Your task to perform on an android device: Open accessibility settings Image 0: 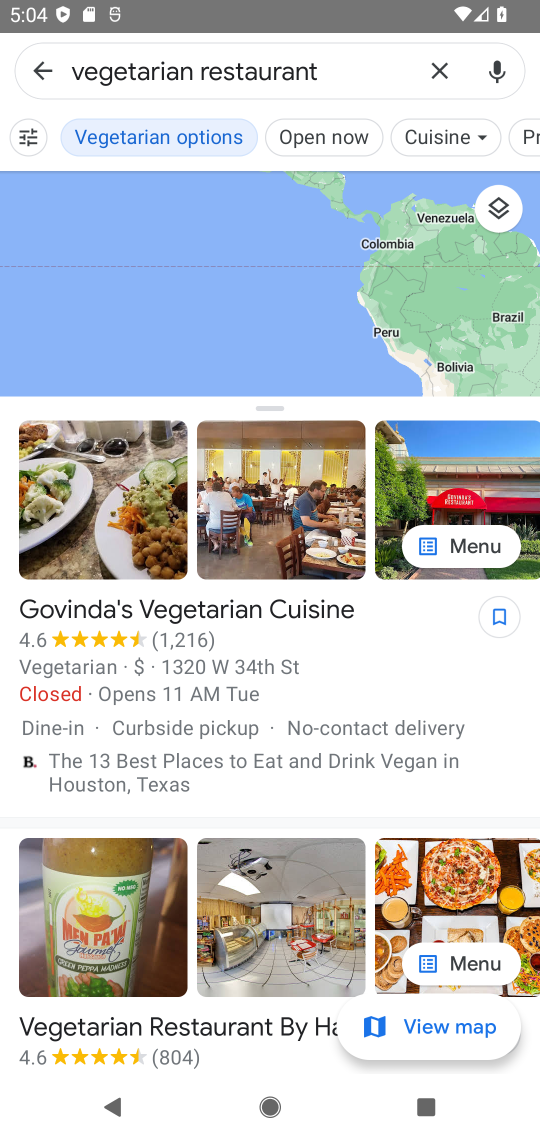
Step 0: press home button
Your task to perform on an android device: Open accessibility settings Image 1: 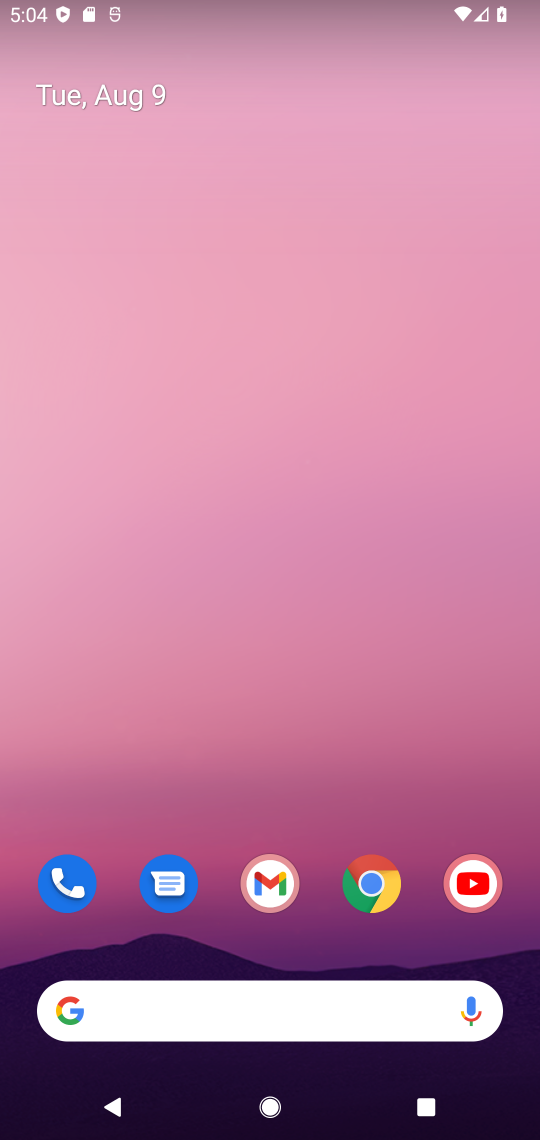
Step 1: drag from (245, 548) to (236, 142)
Your task to perform on an android device: Open accessibility settings Image 2: 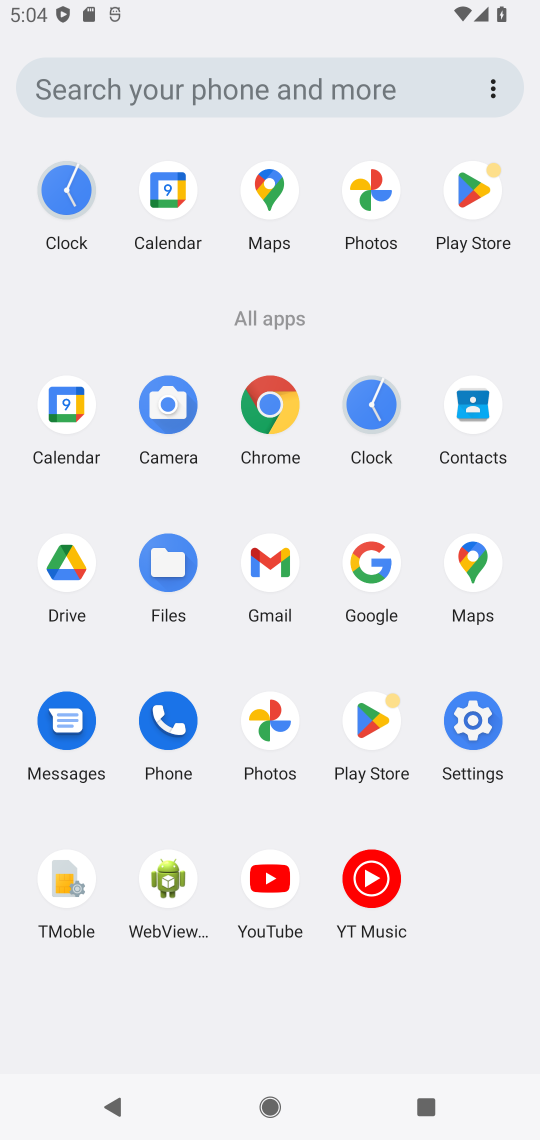
Step 2: click (454, 745)
Your task to perform on an android device: Open accessibility settings Image 3: 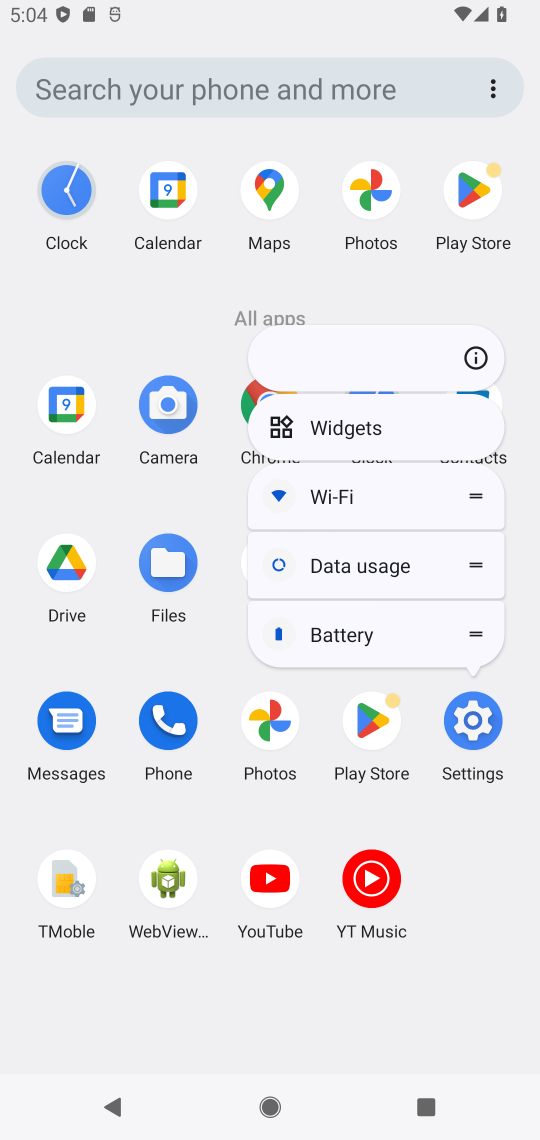
Step 3: click (473, 746)
Your task to perform on an android device: Open accessibility settings Image 4: 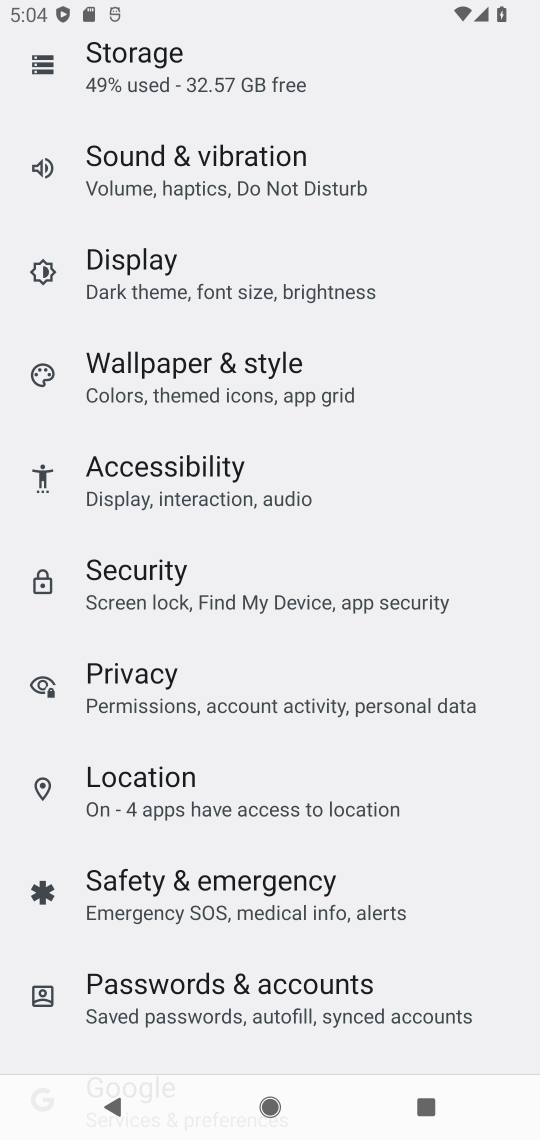
Step 4: click (181, 493)
Your task to perform on an android device: Open accessibility settings Image 5: 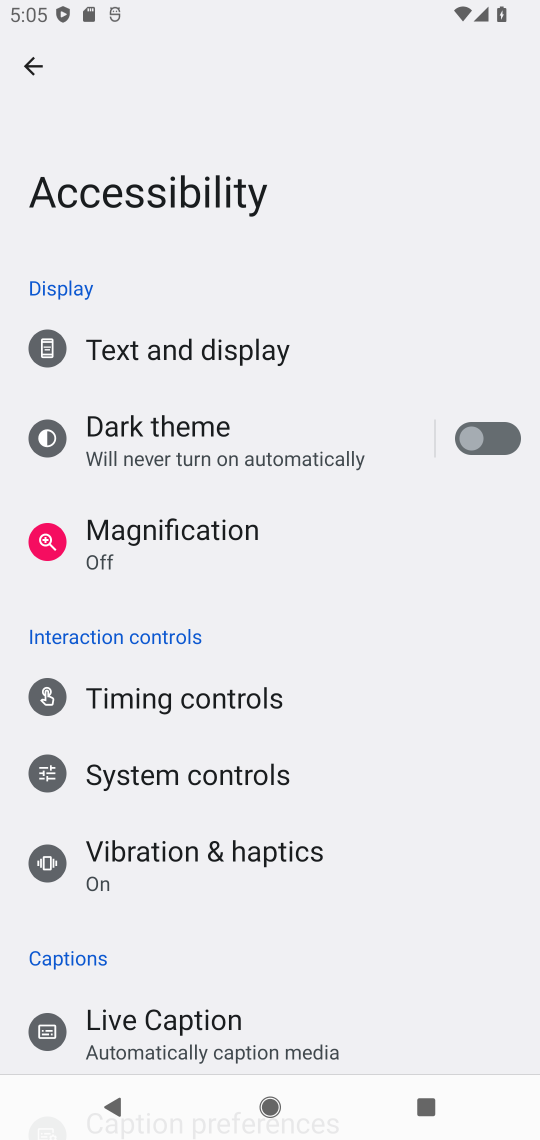
Step 5: task complete